Your task to perform on an android device: toggle pop-ups in chrome Image 0: 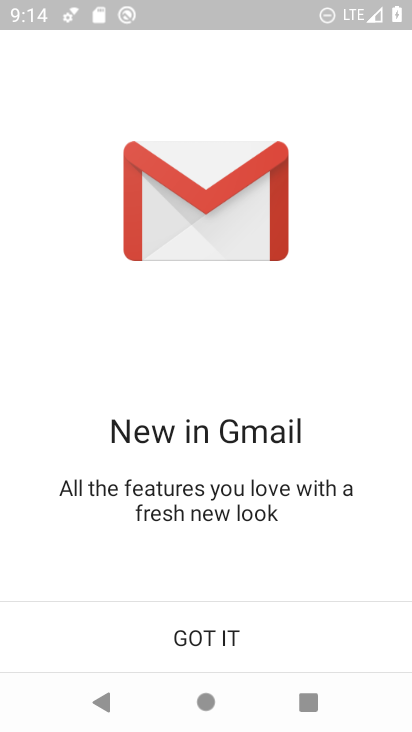
Step 0: press back button
Your task to perform on an android device: toggle pop-ups in chrome Image 1: 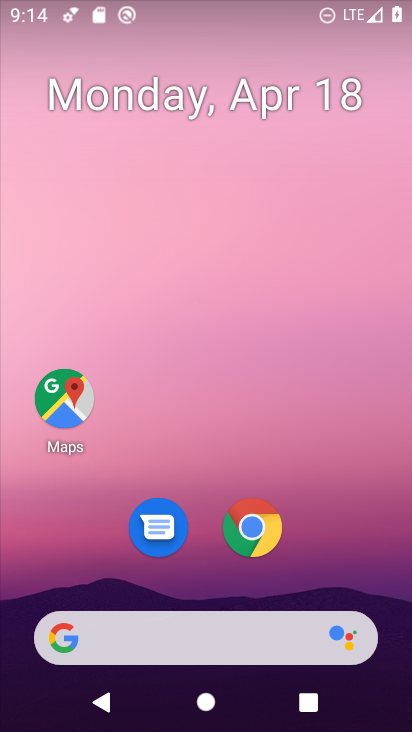
Step 1: drag from (322, 503) to (282, 6)
Your task to perform on an android device: toggle pop-ups in chrome Image 2: 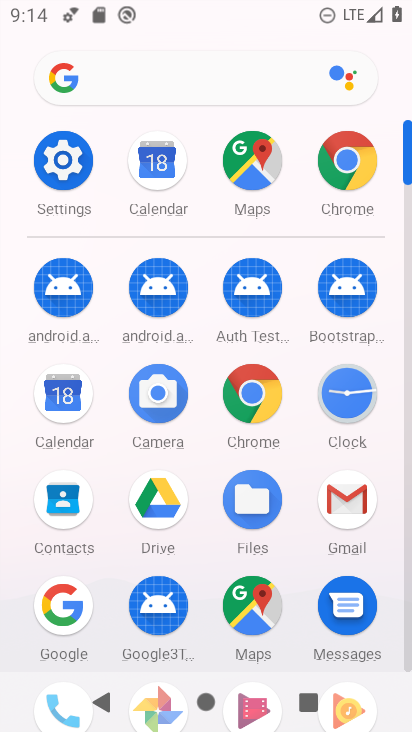
Step 2: click (254, 385)
Your task to perform on an android device: toggle pop-ups in chrome Image 3: 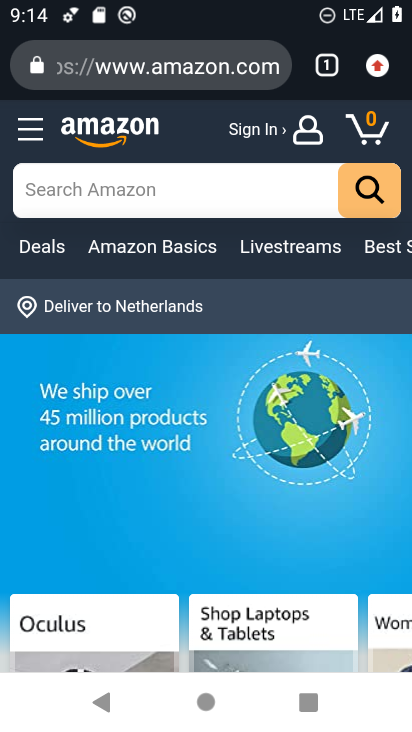
Step 3: drag from (375, 67) to (269, 549)
Your task to perform on an android device: toggle pop-ups in chrome Image 4: 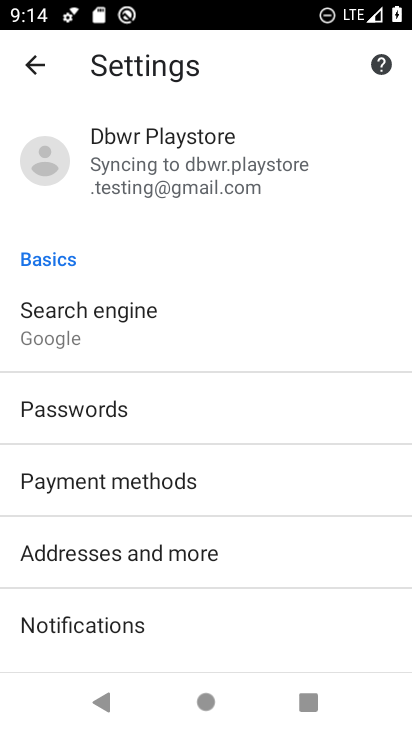
Step 4: drag from (275, 541) to (261, 189)
Your task to perform on an android device: toggle pop-ups in chrome Image 5: 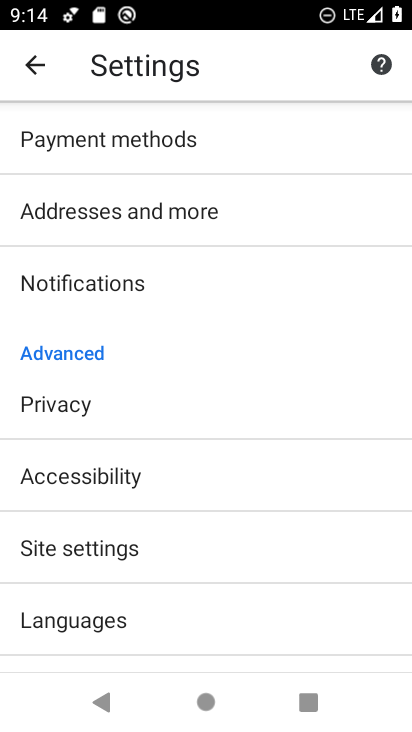
Step 5: click (141, 555)
Your task to perform on an android device: toggle pop-ups in chrome Image 6: 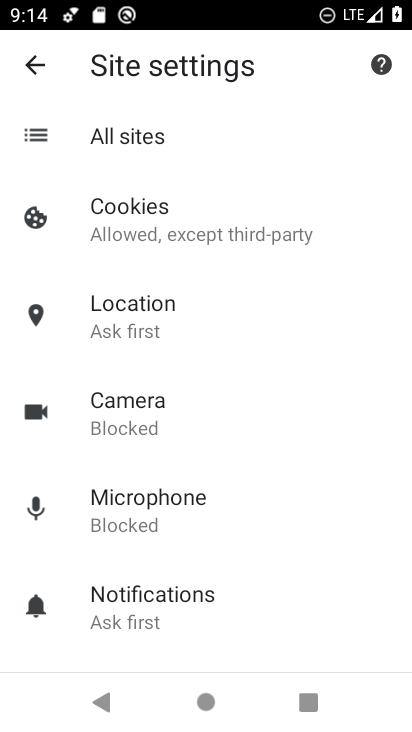
Step 6: drag from (273, 484) to (263, 148)
Your task to perform on an android device: toggle pop-ups in chrome Image 7: 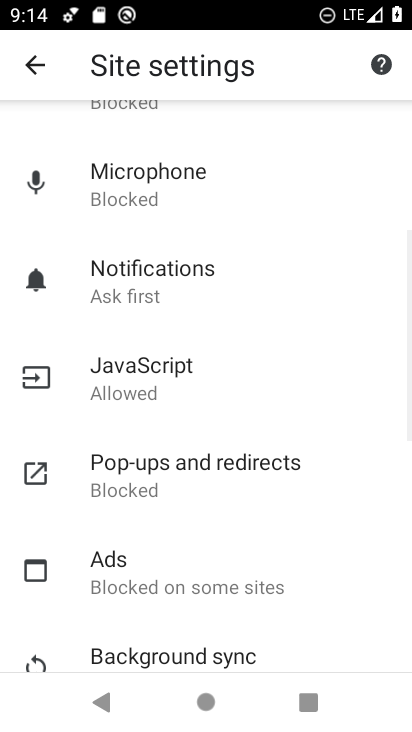
Step 7: click (233, 464)
Your task to perform on an android device: toggle pop-ups in chrome Image 8: 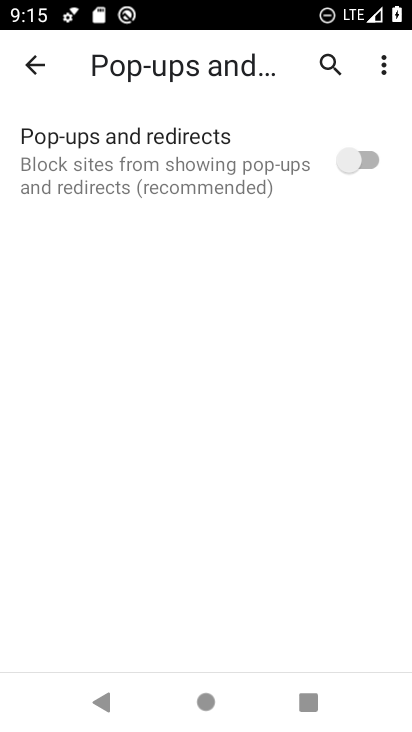
Step 8: click (368, 159)
Your task to perform on an android device: toggle pop-ups in chrome Image 9: 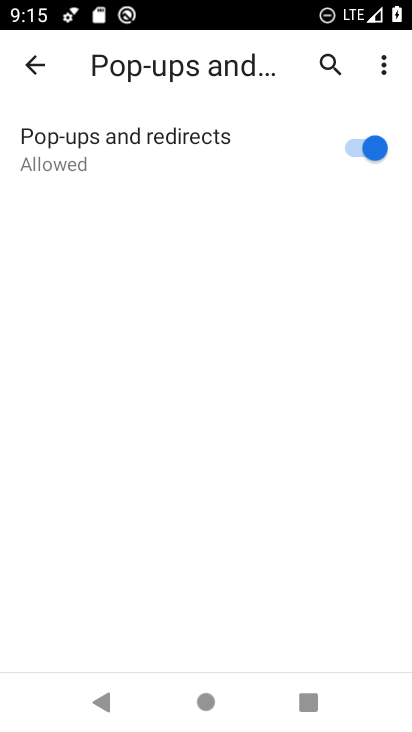
Step 9: task complete